Your task to perform on an android device: Open privacy settings Image 0: 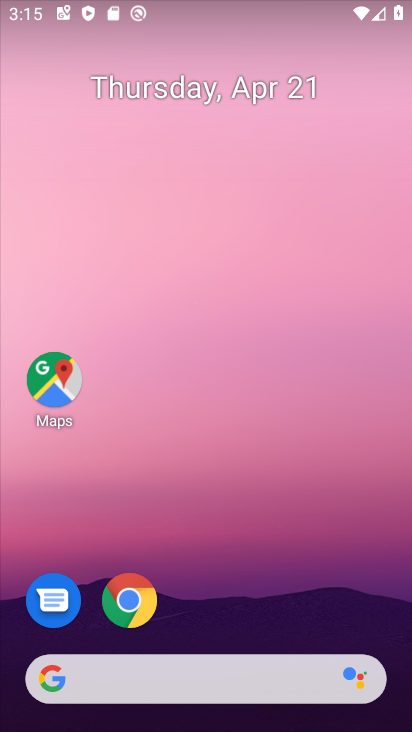
Step 0: drag from (212, 595) to (214, 6)
Your task to perform on an android device: Open privacy settings Image 1: 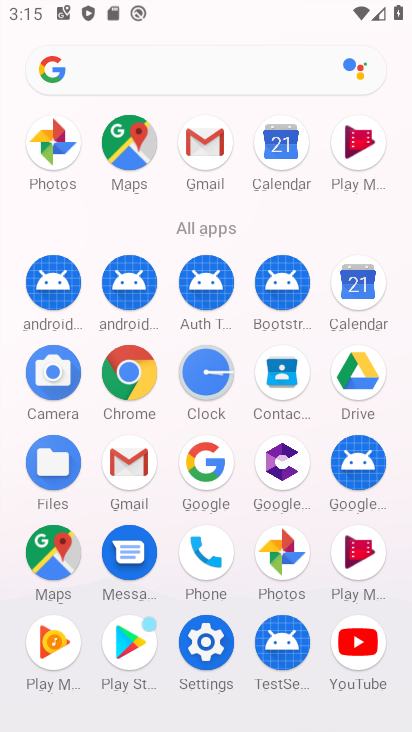
Step 1: click (205, 644)
Your task to perform on an android device: Open privacy settings Image 2: 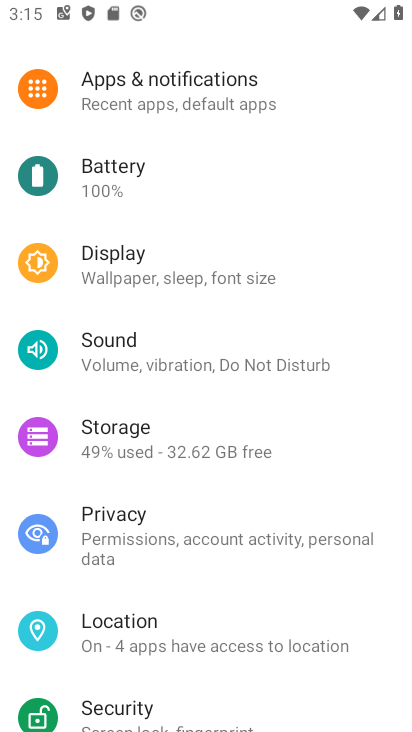
Step 2: click (137, 539)
Your task to perform on an android device: Open privacy settings Image 3: 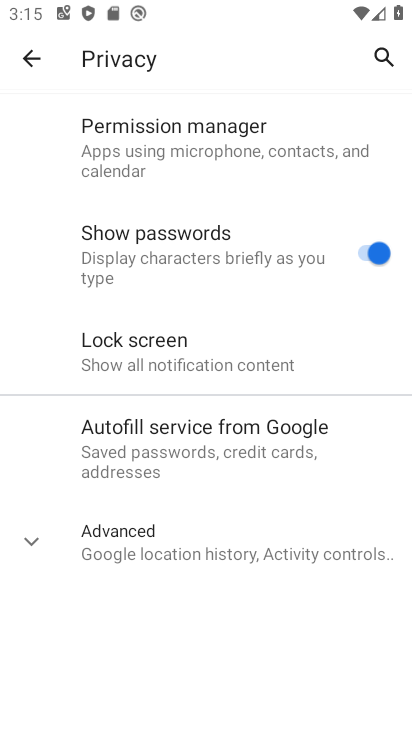
Step 3: task complete